Your task to perform on an android device: open app "LiveIn - Share Your Moment" (install if not already installed) and enter user name: "certifies@gmail.com" and password: "compartmented" Image 0: 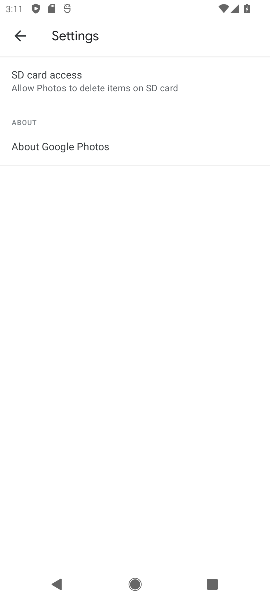
Step 0: click (12, 36)
Your task to perform on an android device: open app "LiveIn - Share Your Moment" (install if not already installed) and enter user name: "certifies@gmail.com" and password: "compartmented" Image 1: 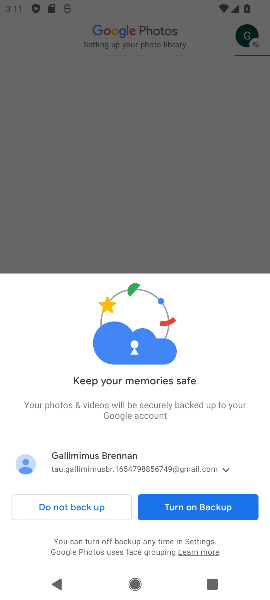
Step 1: click (72, 507)
Your task to perform on an android device: open app "LiveIn - Share Your Moment" (install if not already installed) and enter user name: "certifies@gmail.com" and password: "compartmented" Image 2: 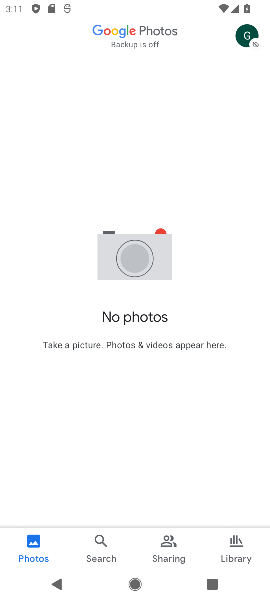
Step 2: press back button
Your task to perform on an android device: open app "LiveIn - Share Your Moment" (install if not already installed) and enter user name: "certifies@gmail.com" and password: "compartmented" Image 3: 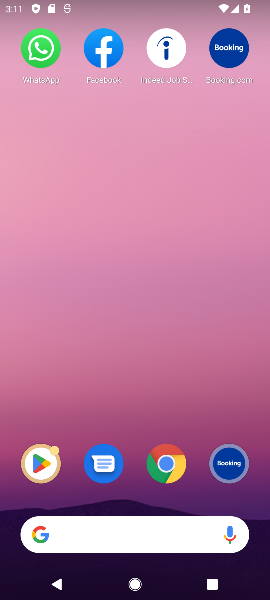
Step 3: drag from (128, 507) to (133, 87)
Your task to perform on an android device: open app "LiveIn - Share Your Moment" (install if not already installed) and enter user name: "certifies@gmail.com" and password: "compartmented" Image 4: 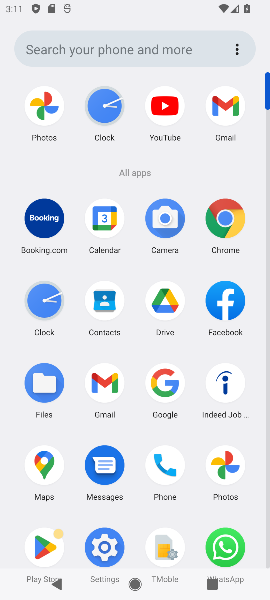
Step 4: click (42, 553)
Your task to perform on an android device: open app "LiveIn - Share Your Moment" (install if not already installed) and enter user name: "certifies@gmail.com" and password: "compartmented" Image 5: 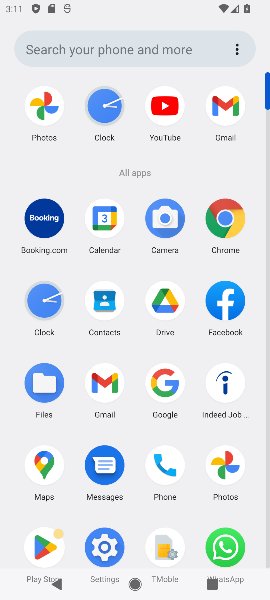
Step 5: click (41, 551)
Your task to perform on an android device: open app "LiveIn - Share Your Moment" (install if not already installed) and enter user name: "certifies@gmail.com" and password: "compartmented" Image 6: 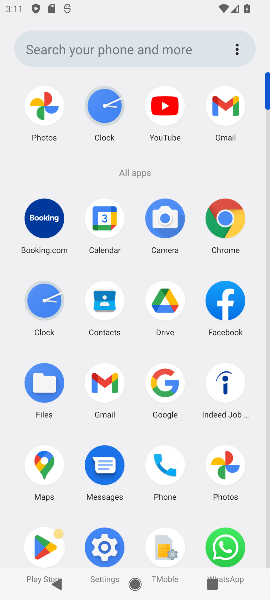
Step 6: click (39, 550)
Your task to perform on an android device: open app "LiveIn - Share Your Moment" (install if not already installed) and enter user name: "certifies@gmail.com" and password: "compartmented" Image 7: 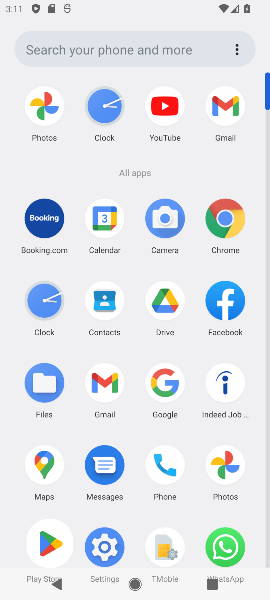
Step 7: click (39, 549)
Your task to perform on an android device: open app "LiveIn - Share Your Moment" (install if not already installed) and enter user name: "certifies@gmail.com" and password: "compartmented" Image 8: 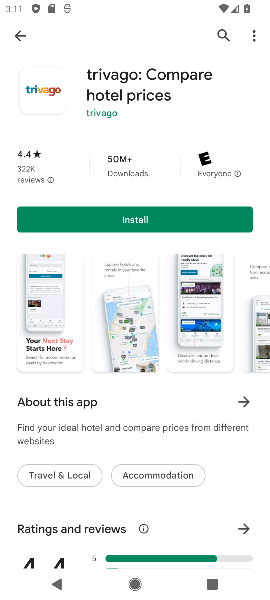
Step 8: click (17, 36)
Your task to perform on an android device: open app "LiveIn - Share Your Moment" (install if not already installed) and enter user name: "certifies@gmail.com" and password: "compartmented" Image 9: 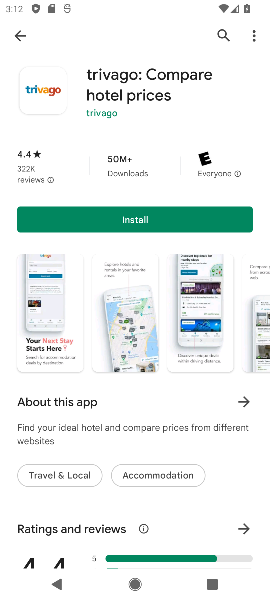
Step 9: click (222, 29)
Your task to perform on an android device: open app "LiveIn - Share Your Moment" (install if not already installed) and enter user name: "certifies@gmail.com" and password: "compartmented" Image 10: 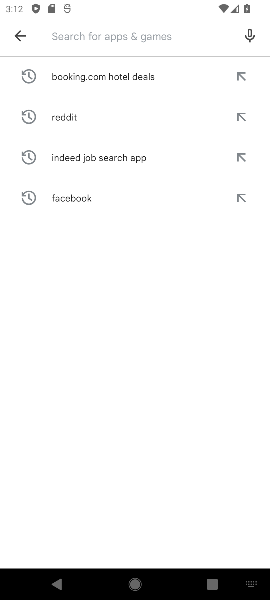
Step 10: type "livein"
Your task to perform on an android device: open app "LiveIn - Share Your Moment" (install if not already installed) and enter user name: "certifies@gmail.com" and password: "compartmented" Image 11: 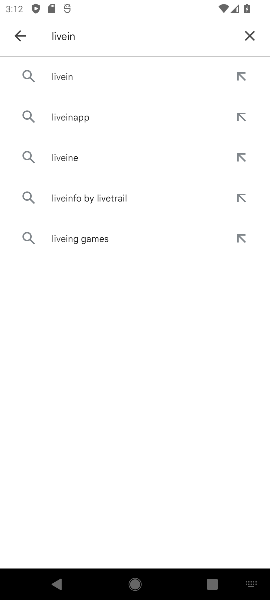
Step 11: click (242, 71)
Your task to perform on an android device: open app "LiveIn - Share Your Moment" (install if not already installed) and enter user name: "certifies@gmail.com" and password: "compartmented" Image 12: 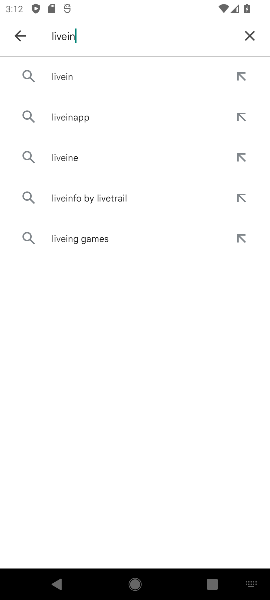
Step 12: click (63, 75)
Your task to perform on an android device: open app "LiveIn - Share Your Moment" (install if not already installed) and enter user name: "certifies@gmail.com" and password: "compartmented" Image 13: 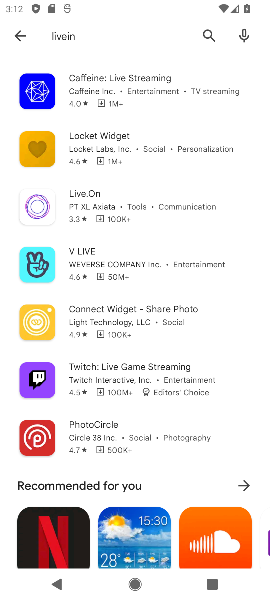
Step 13: drag from (102, 90) to (102, 344)
Your task to perform on an android device: open app "LiveIn - Share Your Moment" (install if not already installed) and enter user name: "certifies@gmail.com" and password: "compartmented" Image 14: 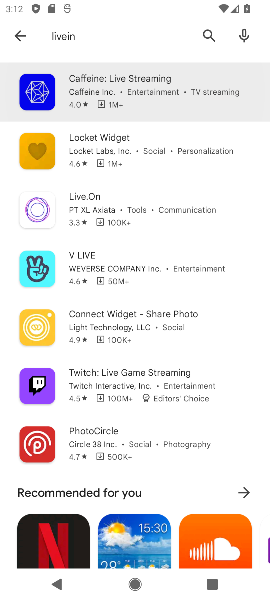
Step 14: drag from (119, 120) to (116, 303)
Your task to perform on an android device: open app "LiveIn - Share Your Moment" (install if not already installed) and enter user name: "certifies@gmail.com" and password: "compartmented" Image 15: 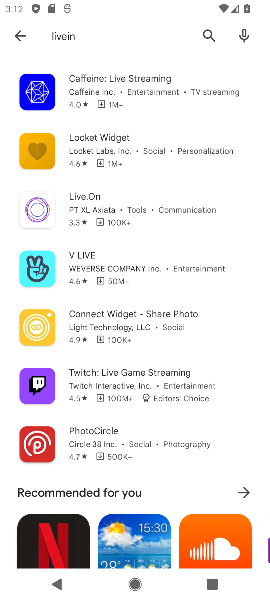
Step 15: drag from (103, 235) to (107, 139)
Your task to perform on an android device: open app "LiveIn - Share Your Moment" (install if not already installed) and enter user name: "certifies@gmail.com" and password: "compartmented" Image 16: 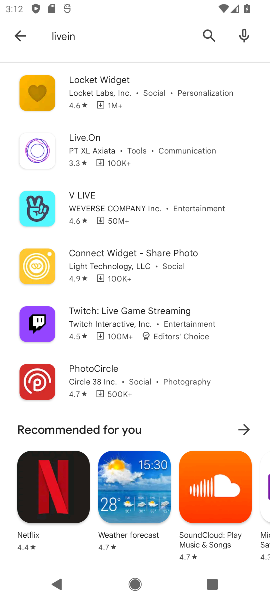
Step 16: drag from (103, 263) to (99, 146)
Your task to perform on an android device: open app "LiveIn - Share Your Moment" (install if not already installed) and enter user name: "certifies@gmail.com" and password: "compartmented" Image 17: 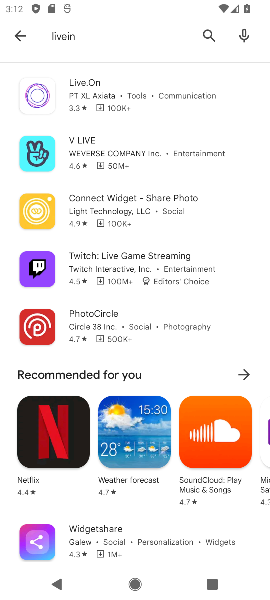
Step 17: drag from (94, 363) to (105, 200)
Your task to perform on an android device: open app "LiveIn - Share Your Moment" (install if not already installed) and enter user name: "certifies@gmail.com" and password: "compartmented" Image 18: 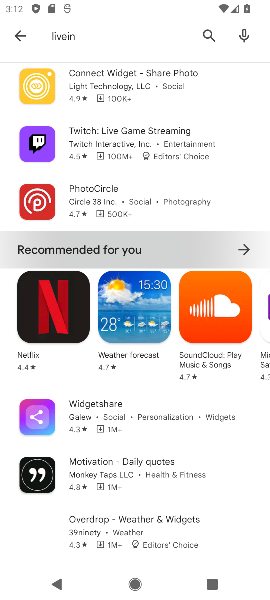
Step 18: drag from (97, 393) to (143, 177)
Your task to perform on an android device: open app "LiveIn - Share Your Moment" (install if not already installed) and enter user name: "certifies@gmail.com" and password: "compartmented" Image 19: 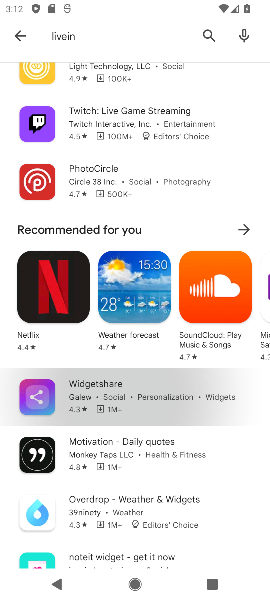
Step 19: drag from (107, 376) to (140, 210)
Your task to perform on an android device: open app "LiveIn - Share Your Moment" (install if not already installed) and enter user name: "certifies@gmail.com" and password: "compartmented" Image 20: 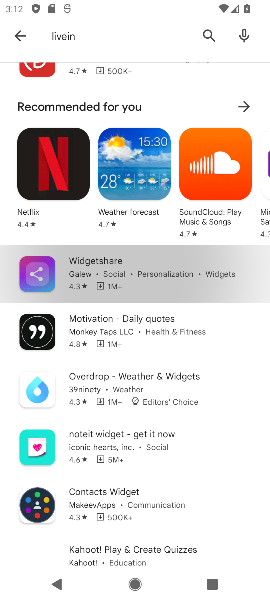
Step 20: drag from (106, 446) to (123, 270)
Your task to perform on an android device: open app "LiveIn - Share Your Moment" (install if not already installed) and enter user name: "certifies@gmail.com" and password: "compartmented" Image 21: 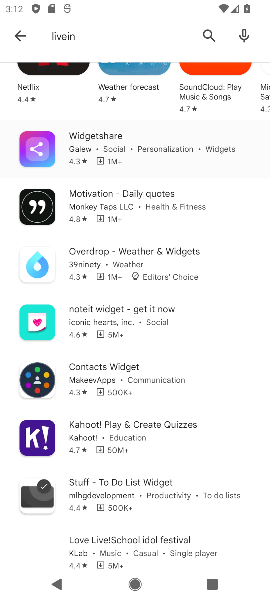
Step 21: drag from (124, 451) to (138, 280)
Your task to perform on an android device: open app "LiveIn - Share Your Moment" (install if not already installed) and enter user name: "certifies@gmail.com" and password: "compartmented" Image 22: 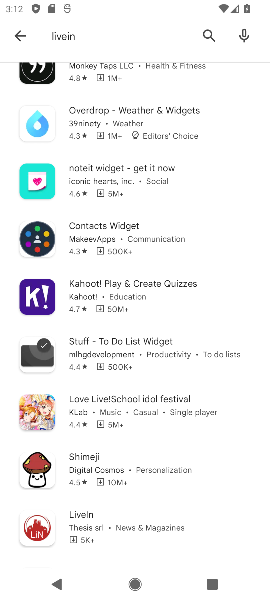
Step 22: drag from (115, 443) to (112, 290)
Your task to perform on an android device: open app "LiveIn - Share Your Moment" (install if not already installed) and enter user name: "certifies@gmail.com" and password: "compartmented" Image 23: 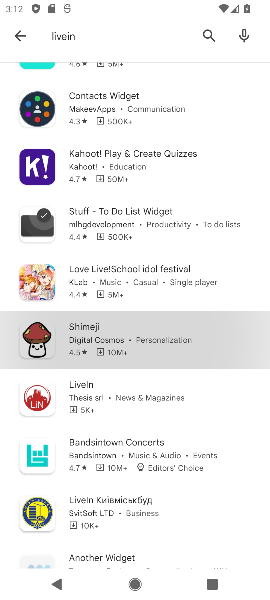
Step 23: drag from (90, 439) to (90, 271)
Your task to perform on an android device: open app "LiveIn - Share Your Moment" (install if not already installed) and enter user name: "certifies@gmail.com" and password: "compartmented" Image 24: 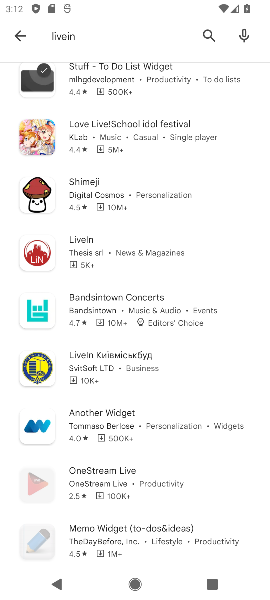
Step 24: drag from (80, 456) to (87, 259)
Your task to perform on an android device: open app "LiveIn - Share Your Moment" (install if not already installed) and enter user name: "certifies@gmail.com" and password: "compartmented" Image 25: 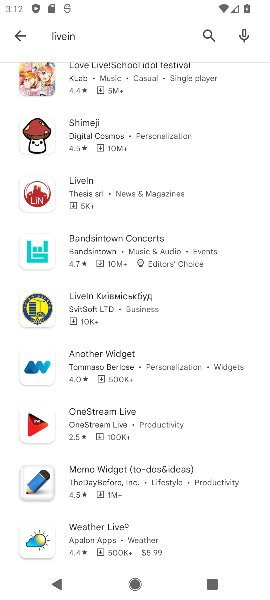
Step 25: drag from (113, 421) to (139, 240)
Your task to perform on an android device: open app "LiveIn - Share Your Moment" (install if not already installed) and enter user name: "certifies@gmail.com" and password: "compartmented" Image 26: 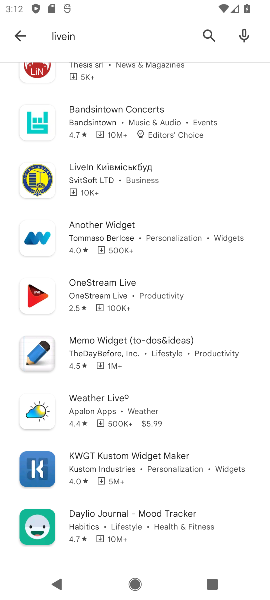
Step 26: drag from (91, 472) to (112, 328)
Your task to perform on an android device: open app "LiveIn - Share Your Moment" (install if not already installed) and enter user name: "certifies@gmail.com" and password: "compartmented" Image 27: 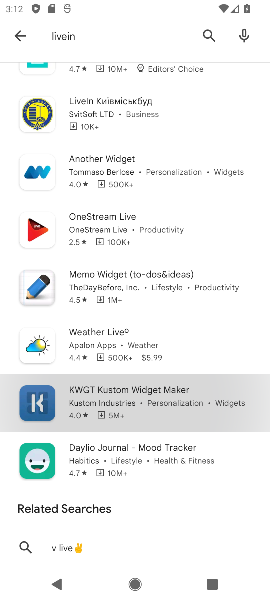
Step 27: drag from (92, 458) to (100, 341)
Your task to perform on an android device: open app "LiveIn - Share Your Moment" (install if not already installed) and enter user name: "certifies@gmail.com" and password: "compartmented" Image 28: 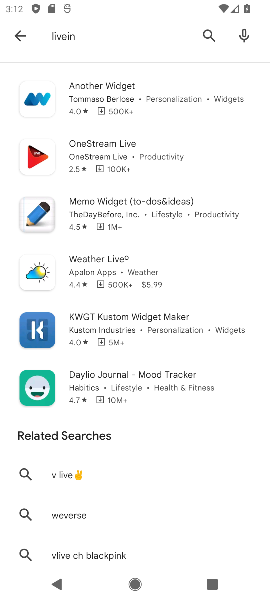
Step 28: drag from (88, 492) to (88, 330)
Your task to perform on an android device: open app "LiveIn - Share Your Moment" (install if not already installed) and enter user name: "certifies@gmail.com" and password: "compartmented" Image 29: 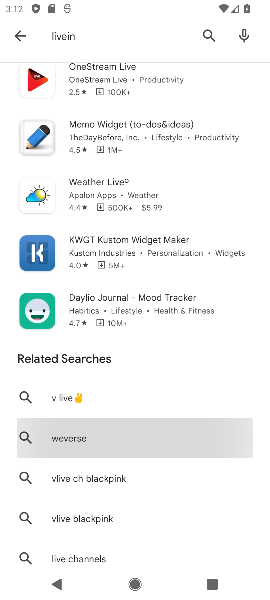
Step 29: drag from (88, 483) to (104, 332)
Your task to perform on an android device: open app "LiveIn - Share Your Moment" (install if not already installed) and enter user name: "certifies@gmail.com" and password: "compartmented" Image 30: 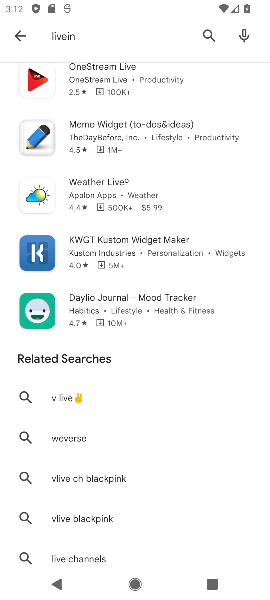
Step 30: drag from (116, 294) to (115, 515)
Your task to perform on an android device: open app "LiveIn - Share Your Moment" (install if not already installed) and enter user name: "certifies@gmail.com" and password: "compartmented" Image 31: 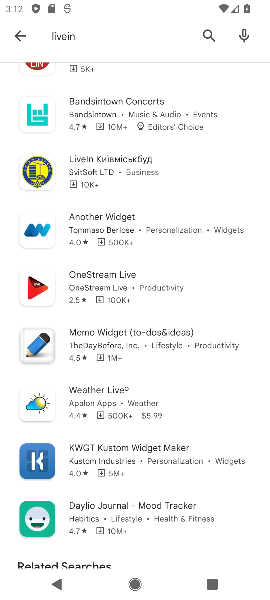
Step 31: drag from (116, 303) to (117, 432)
Your task to perform on an android device: open app "LiveIn - Share Your Moment" (install if not already installed) and enter user name: "certifies@gmail.com" and password: "compartmented" Image 32: 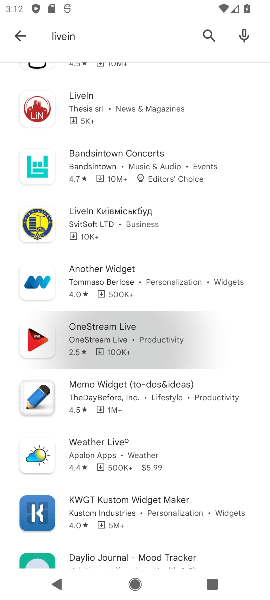
Step 32: drag from (109, 326) to (109, 544)
Your task to perform on an android device: open app "LiveIn - Share Your Moment" (install if not already installed) and enter user name: "certifies@gmail.com" and password: "compartmented" Image 33: 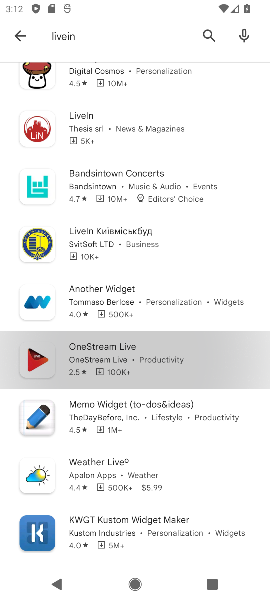
Step 33: drag from (100, 285) to (100, 531)
Your task to perform on an android device: open app "LiveIn - Share Your Moment" (install if not already installed) and enter user name: "certifies@gmail.com" and password: "compartmented" Image 34: 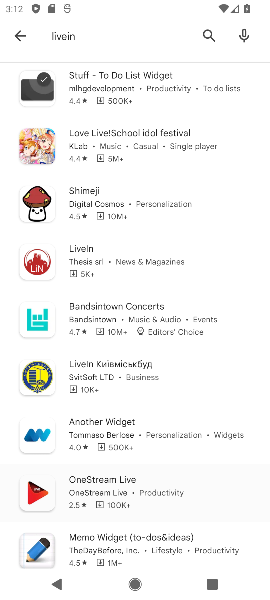
Step 34: drag from (146, 248) to (117, 502)
Your task to perform on an android device: open app "LiveIn - Share Your Moment" (install if not already installed) and enter user name: "certifies@gmail.com" and password: "compartmented" Image 35: 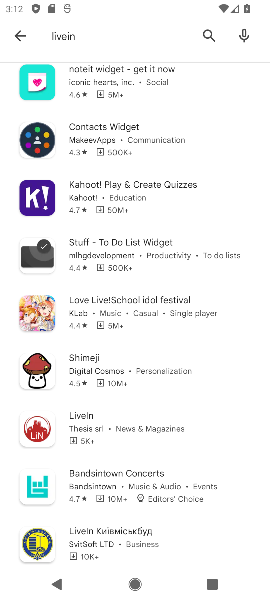
Step 35: drag from (91, 242) to (89, 428)
Your task to perform on an android device: open app "LiveIn - Share Your Moment" (install if not already installed) and enter user name: "certifies@gmail.com" and password: "compartmented" Image 36: 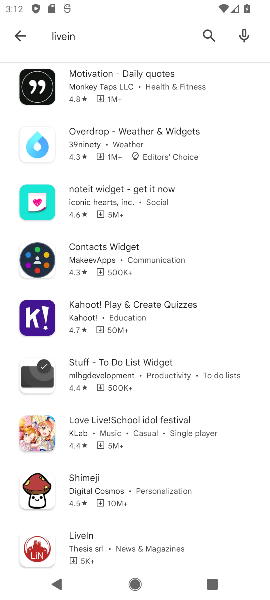
Step 36: drag from (93, 262) to (94, 417)
Your task to perform on an android device: open app "LiveIn - Share Your Moment" (install if not already installed) and enter user name: "certifies@gmail.com" and password: "compartmented" Image 37: 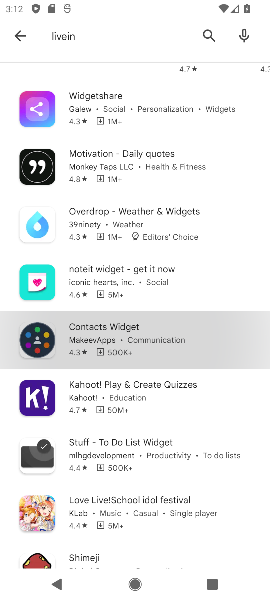
Step 37: drag from (114, 299) to (114, 475)
Your task to perform on an android device: open app "LiveIn - Share Your Moment" (install if not already installed) and enter user name: "certifies@gmail.com" and password: "compartmented" Image 38: 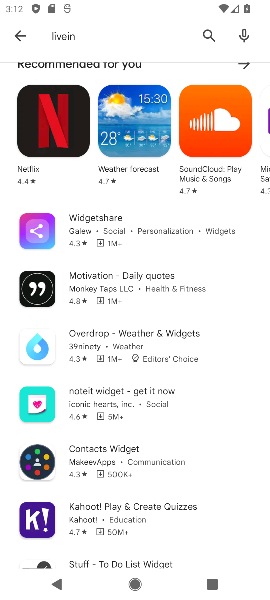
Step 38: drag from (114, 340) to (141, 505)
Your task to perform on an android device: open app "LiveIn - Share Your Moment" (install if not already installed) and enter user name: "certifies@gmail.com" and password: "compartmented" Image 39: 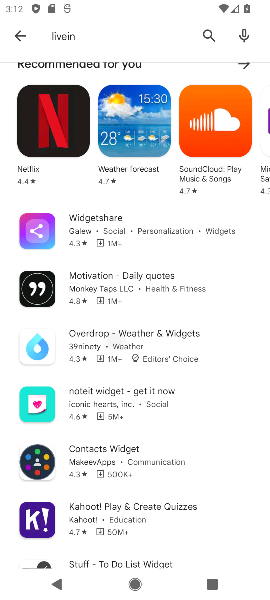
Step 39: drag from (166, 294) to (157, 519)
Your task to perform on an android device: open app "LiveIn - Share Your Moment" (install if not already installed) and enter user name: "certifies@gmail.com" and password: "compartmented" Image 40: 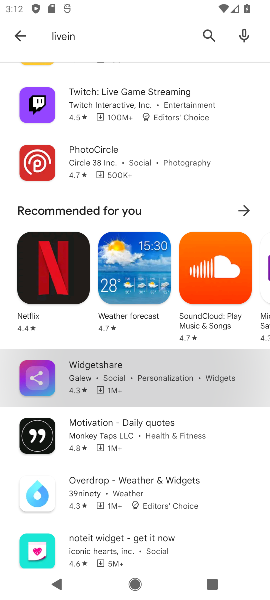
Step 40: drag from (107, 295) to (107, 522)
Your task to perform on an android device: open app "LiveIn - Share Your Moment" (install if not already installed) and enter user name: "certifies@gmail.com" and password: "compartmented" Image 41: 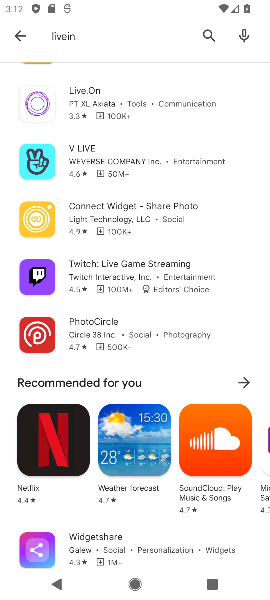
Step 41: drag from (119, 259) to (120, 550)
Your task to perform on an android device: open app "LiveIn - Share Your Moment" (install if not already installed) and enter user name: "certifies@gmail.com" and password: "compartmented" Image 42: 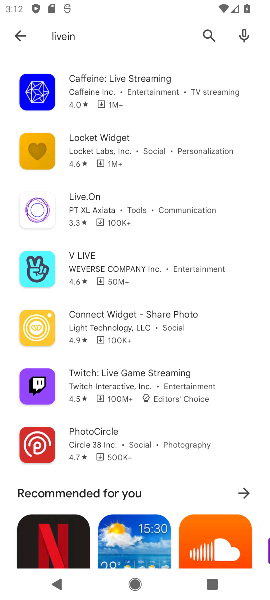
Step 42: drag from (120, 307) to (120, 525)
Your task to perform on an android device: open app "LiveIn - Share Your Moment" (install if not already installed) and enter user name: "certifies@gmail.com" and password: "compartmented" Image 43: 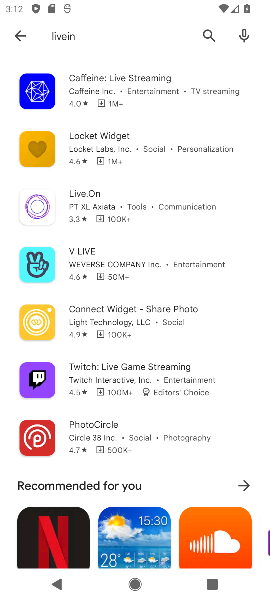
Step 43: drag from (133, 250) to (163, 392)
Your task to perform on an android device: open app "LiveIn - Share Your Moment" (install if not already installed) and enter user name: "certifies@gmail.com" and password: "compartmented" Image 44: 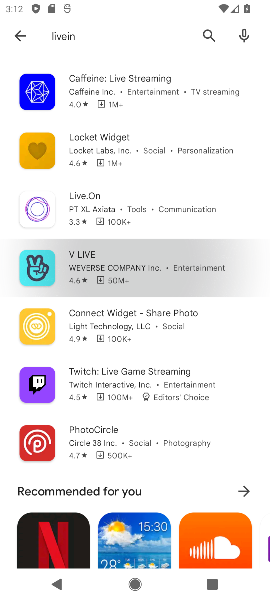
Step 44: drag from (152, 216) to (137, 373)
Your task to perform on an android device: open app "LiveIn - Share Your Moment" (install if not already installed) and enter user name: "certifies@gmail.com" and password: "compartmented" Image 45: 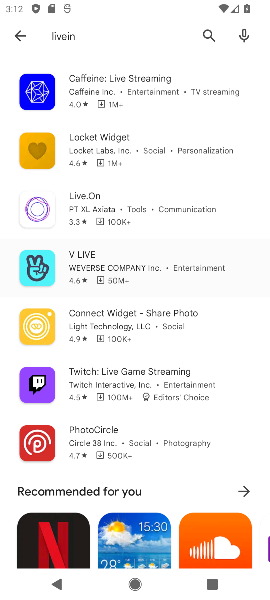
Step 45: drag from (130, 204) to (135, 418)
Your task to perform on an android device: open app "LiveIn - Share Your Moment" (install if not already installed) and enter user name: "certifies@gmail.com" and password: "compartmented" Image 46: 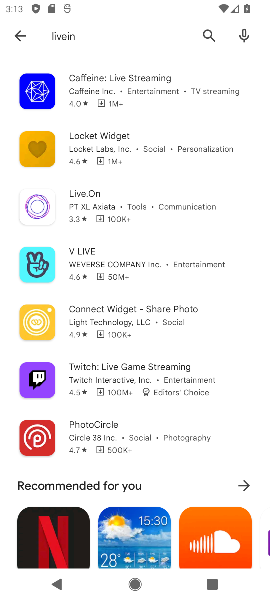
Step 46: drag from (156, 535) to (68, 505)
Your task to perform on an android device: open app "LiveIn - Share Your Moment" (install if not already installed) and enter user name: "certifies@gmail.com" and password: "compartmented" Image 47: 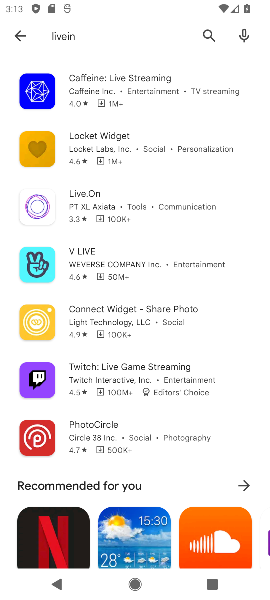
Step 47: click (105, 36)
Your task to perform on an android device: open app "LiveIn - Share Your Moment" (install if not already installed) and enter user name: "certifies@gmail.com" and password: "compartmented" Image 48: 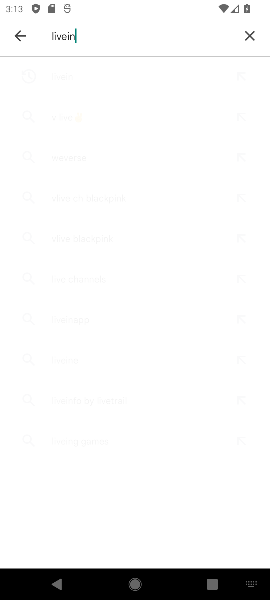
Step 48: click (85, 33)
Your task to perform on an android device: open app "LiveIn - Share Your Moment" (install if not already installed) and enter user name: "certifies@gmail.com" and password: "compartmented" Image 49: 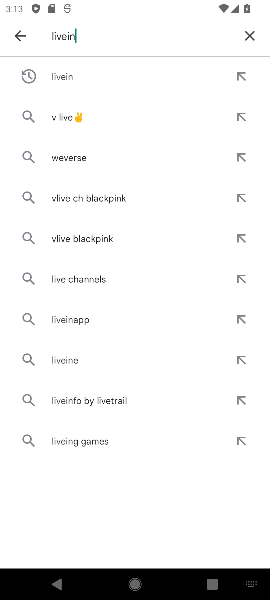
Step 49: type " share your moment"
Your task to perform on an android device: open app "LiveIn - Share Your Moment" (install if not already installed) and enter user name: "certifies@gmail.com" and password: "compartmented" Image 50: 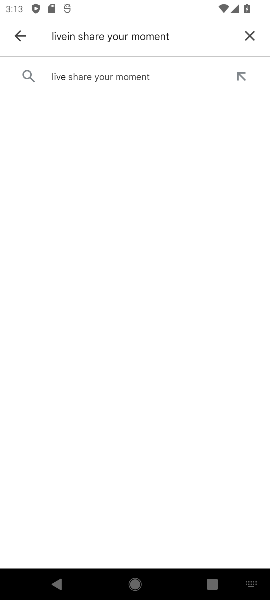
Step 50: click (123, 78)
Your task to perform on an android device: open app "LiveIn - Share Your Moment" (install if not already installed) and enter user name: "certifies@gmail.com" and password: "compartmented" Image 51: 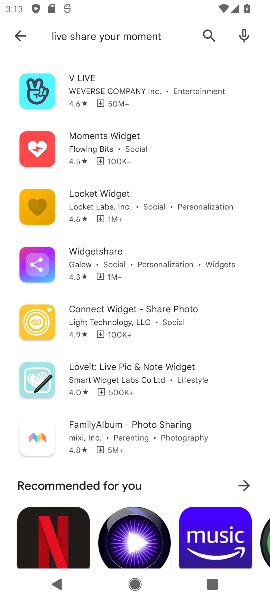
Step 51: task complete